Your task to perform on an android device: find snoozed emails in the gmail app Image 0: 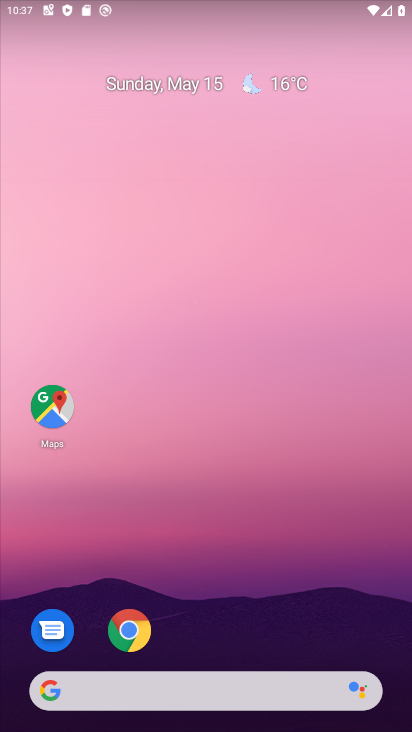
Step 0: drag from (231, 637) to (235, 205)
Your task to perform on an android device: find snoozed emails in the gmail app Image 1: 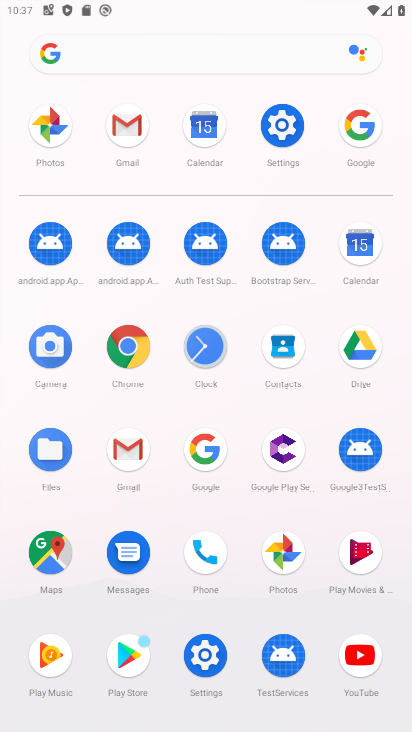
Step 1: click (142, 129)
Your task to perform on an android device: find snoozed emails in the gmail app Image 2: 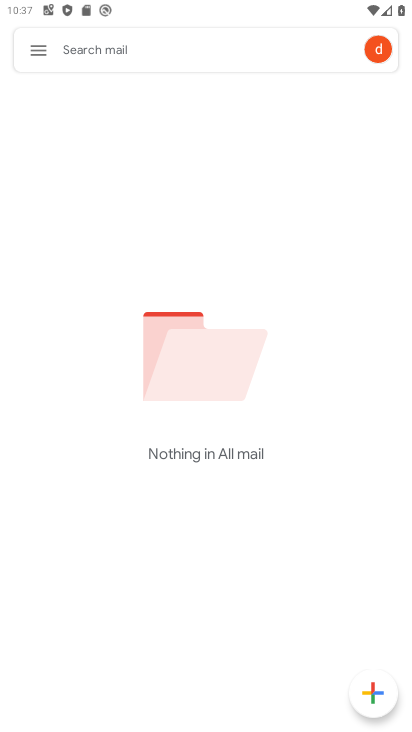
Step 2: click (35, 61)
Your task to perform on an android device: find snoozed emails in the gmail app Image 3: 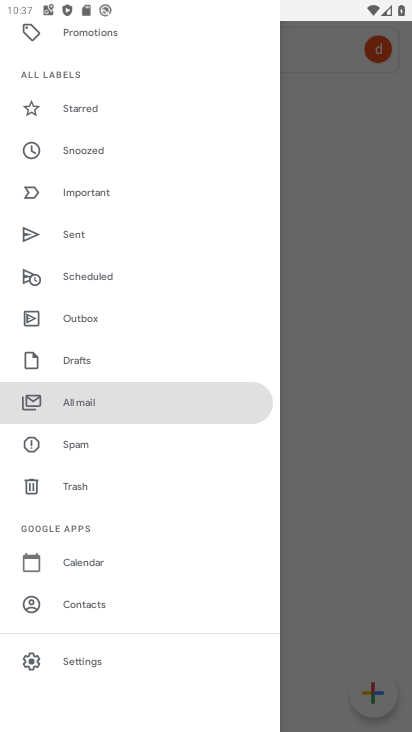
Step 3: click (121, 146)
Your task to perform on an android device: find snoozed emails in the gmail app Image 4: 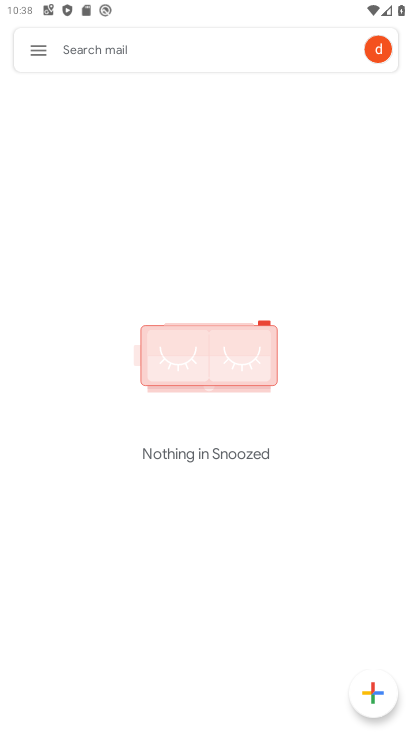
Step 4: task complete